Your task to perform on an android device: Go to display settings Image 0: 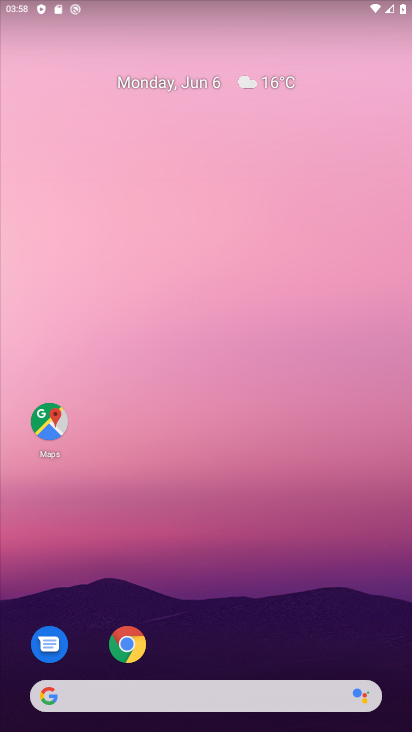
Step 0: drag from (368, 671) to (304, 11)
Your task to perform on an android device: Go to display settings Image 1: 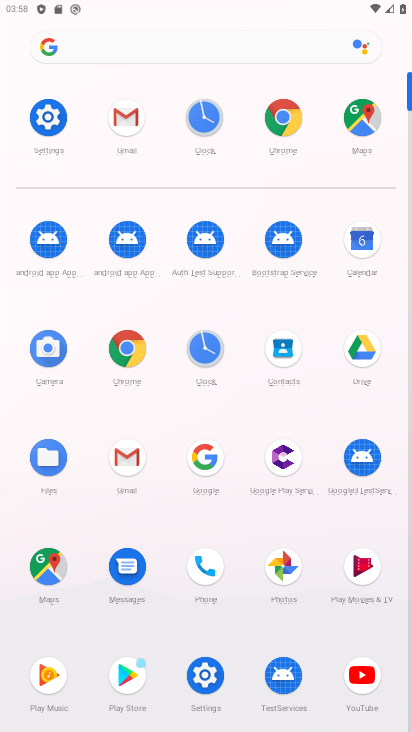
Step 1: click (40, 118)
Your task to perform on an android device: Go to display settings Image 2: 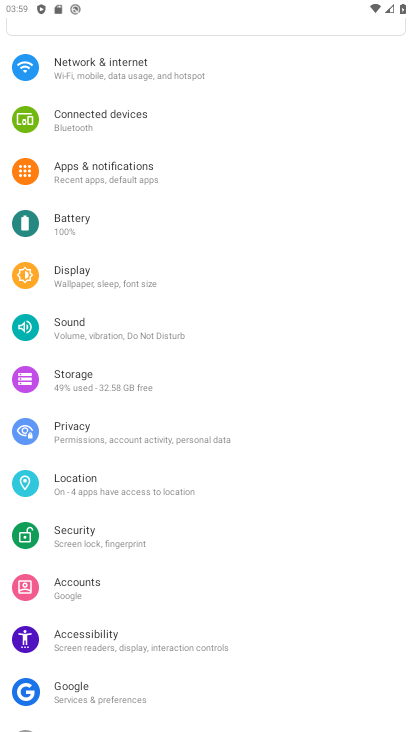
Step 2: click (73, 279)
Your task to perform on an android device: Go to display settings Image 3: 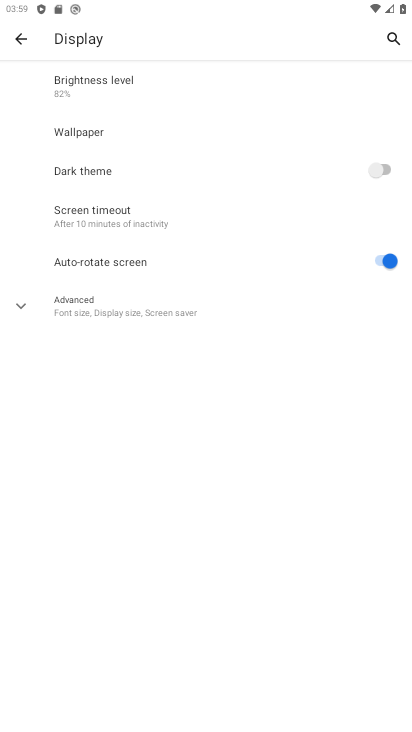
Step 3: click (56, 297)
Your task to perform on an android device: Go to display settings Image 4: 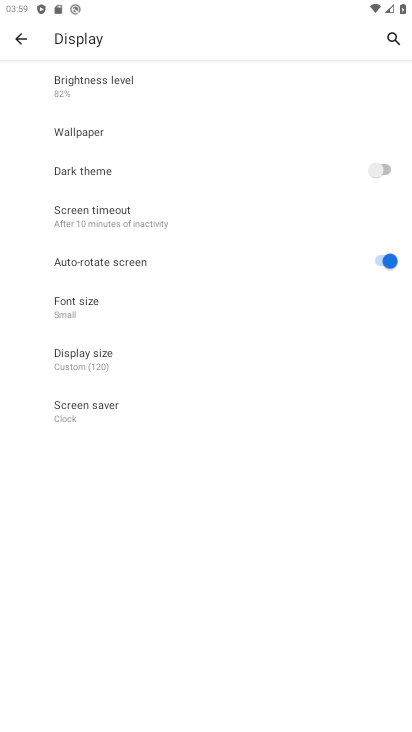
Step 4: task complete